Your task to perform on an android device: remove spam from my inbox in the gmail app Image 0: 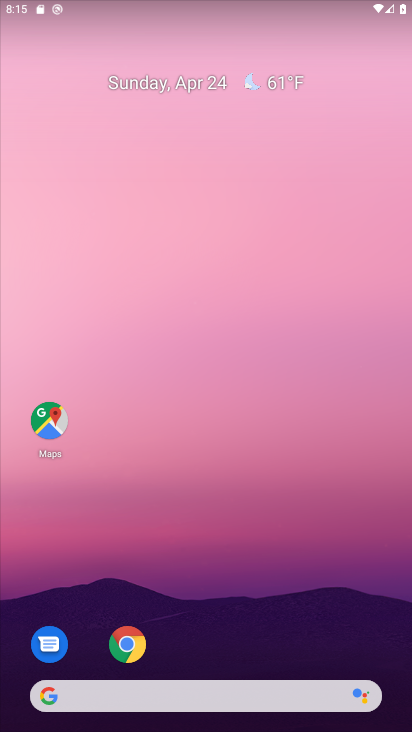
Step 0: drag from (204, 637) to (224, 31)
Your task to perform on an android device: remove spam from my inbox in the gmail app Image 1: 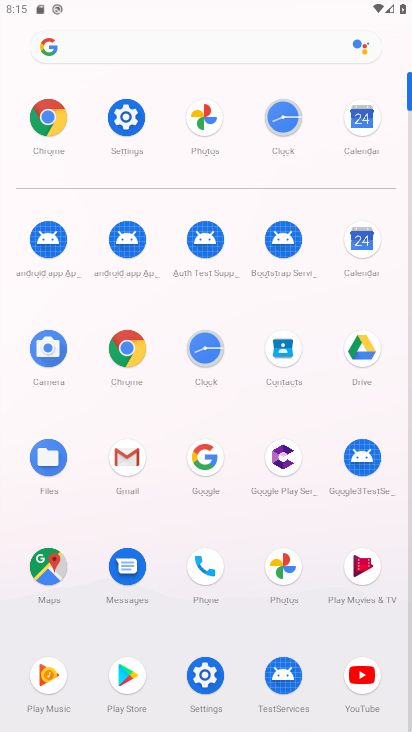
Step 1: click (127, 454)
Your task to perform on an android device: remove spam from my inbox in the gmail app Image 2: 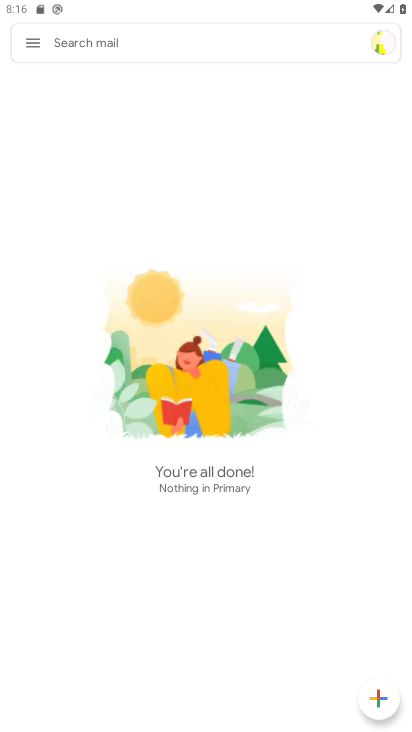
Step 2: click (24, 41)
Your task to perform on an android device: remove spam from my inbox in the gmail app Image 3: 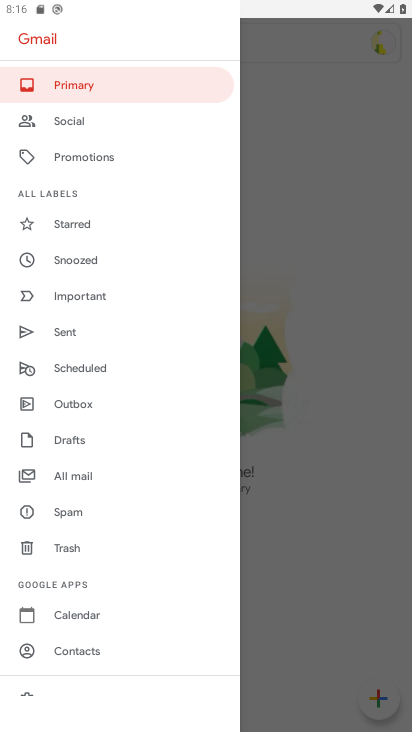
Step 3: click (87, 508)
Your task to perform on an android device: remove spam from my inbox in the gmail app Image 4: 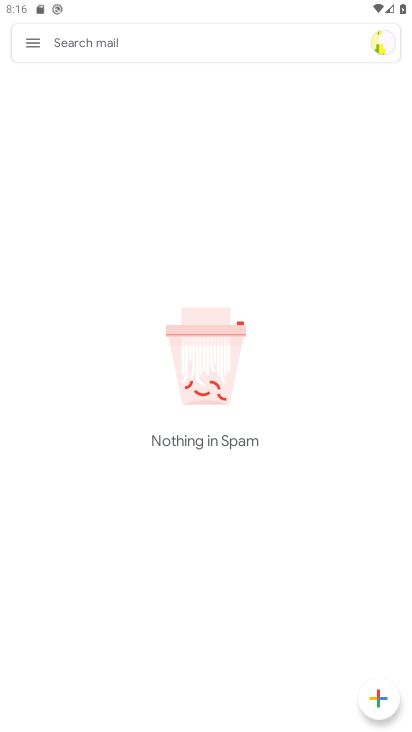
Step 4: task complete